Your task to perform on an android device: Search for vegetarian restaurants on Maps Image 0: 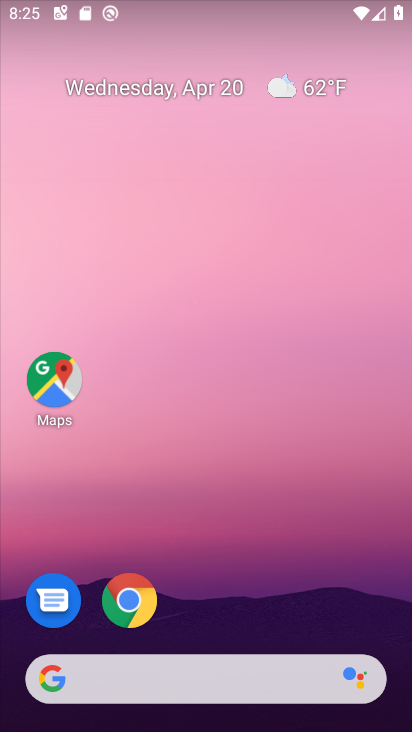
Step 0: click (57, 368)
Your task to perform on an android device: Search for vegetarian restaurants on Maps Image 1: 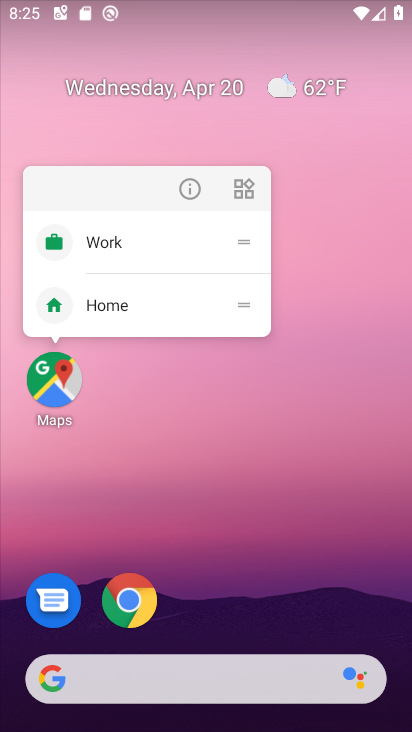
Step 1: click (48, 386)
Your task to perform on an android device: Search for vegetarian restaurants on Maps Image 2: 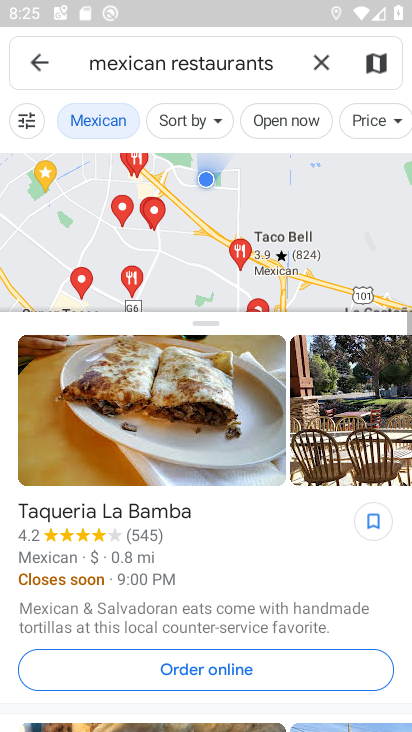
Step 2: click (314, 65)
Your task to perform on an android device: Search for vegetarian restaurants on Maps Image 3: 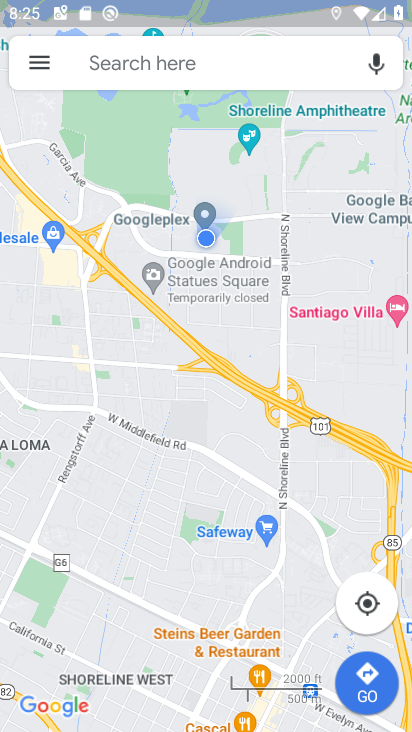
Step 3: click (125, 64)
Your task to perform on an android device: Search for vegetarian restaurants on Maps Image 4: 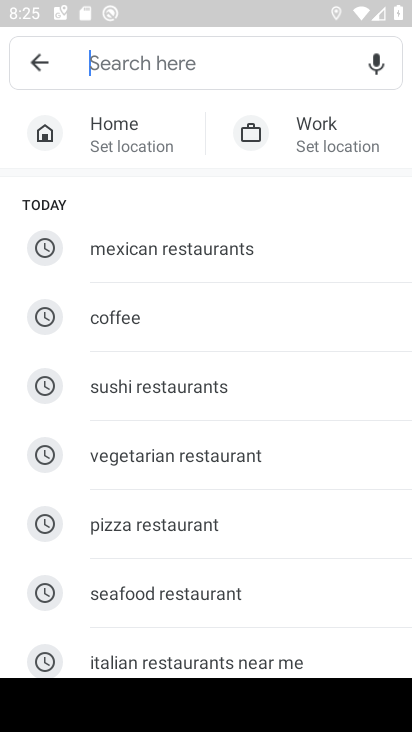
Step 4: click (195, 450)
Your task to perform on an android device: Search for vegetarian restaurants on Maps Image 5: 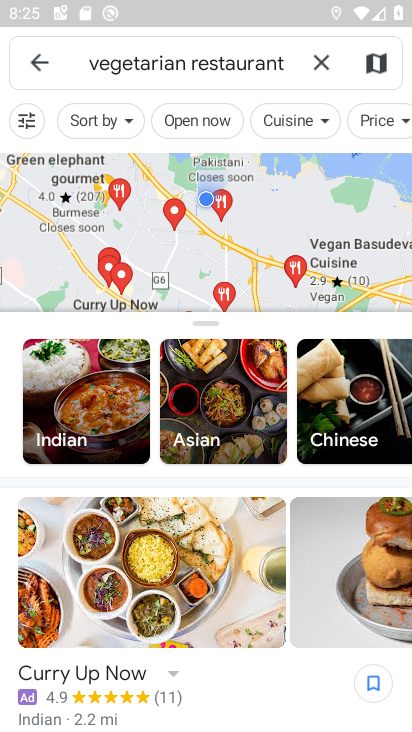
Step 5: task complete